Your task to perform on an android device: toggle data saver in the chrome app Image 0: 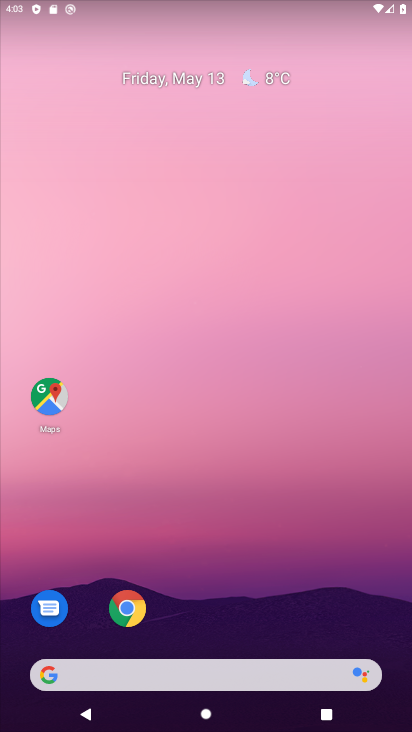
Step 0: click (127, 611)
Your task to perform on an android device: toggle data saver in the chrome app Image 1: 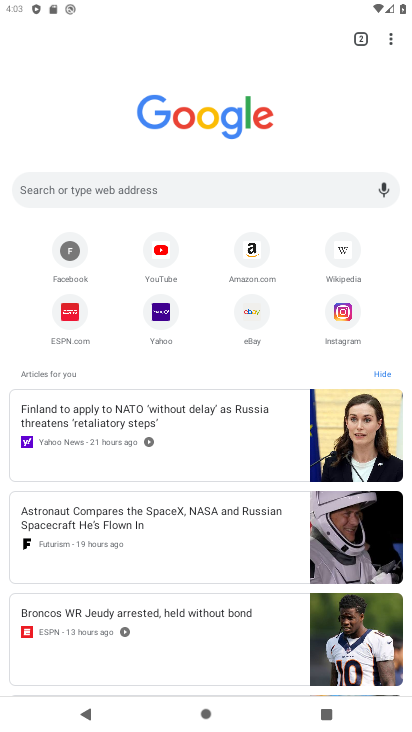
Step 1: click (359, 37)
Your task to perform on an android device: toggle data saver in the chrome app Image 2: 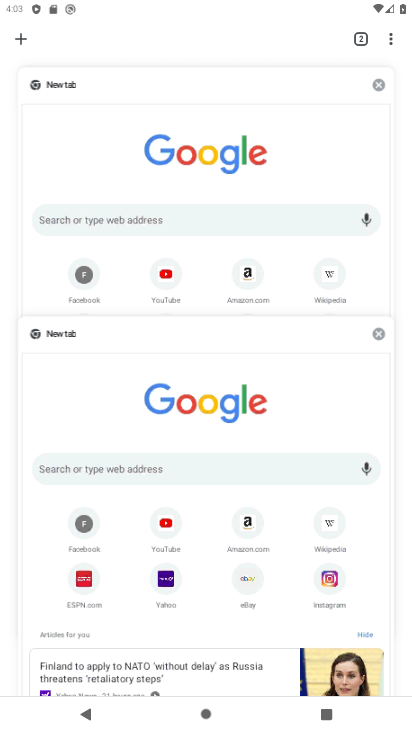
Step 2: click (21, 45)
Your task to perform on an android device: toggle data saver in the chrome app Image 3: 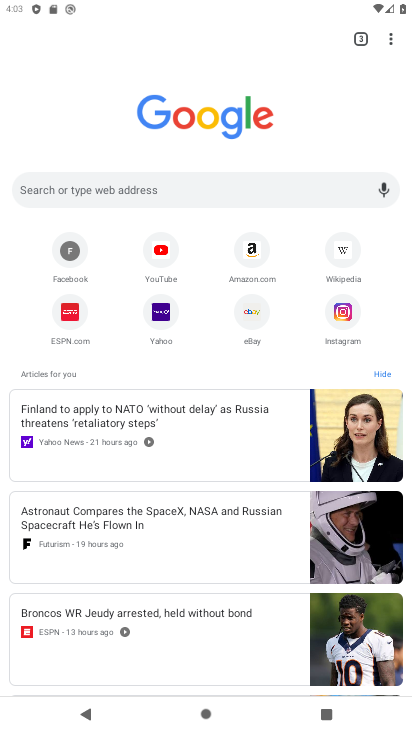
Step 3: click (382, 34)
Your task to perform on an android device: toggle data saver in the chrome app Image 4: 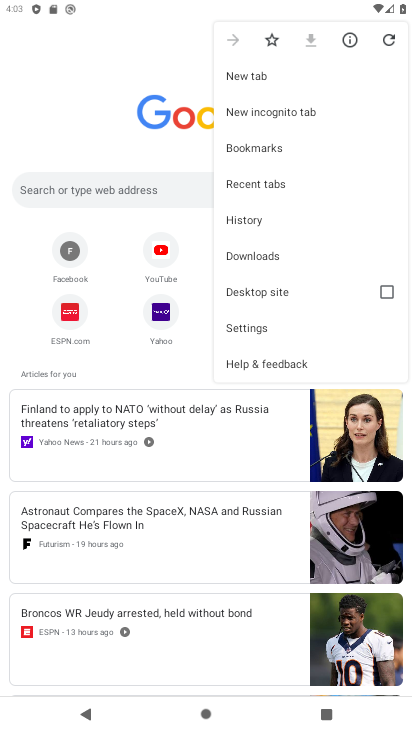
Step 4: click (254, 325)
Your task to perform on an android device: toggle data saver in the chrome app Image 5: 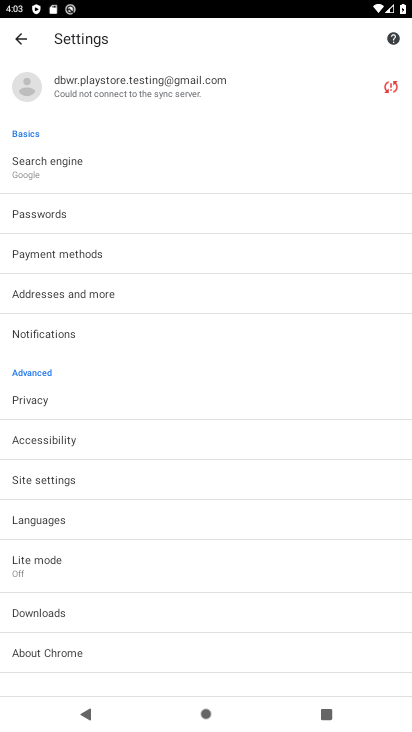
Step 5: click (70, 558)
Your task to perform on an android device: toggle data saver in the chrome app Image 6: 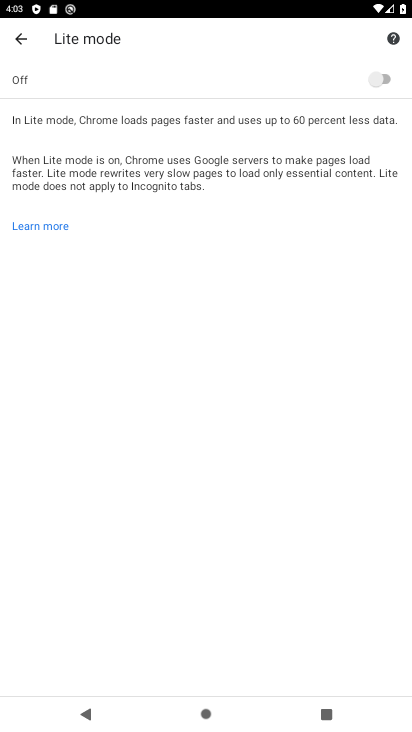
Step 6: click (373, 74)
Your task to perform on an android device: toggle data saver in the chrome app Image 7: 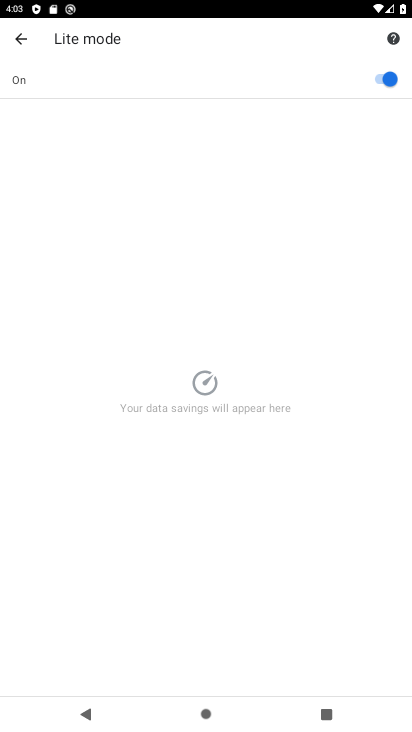
Step 7: task complete